Your task to perform on an android device: Go to sound settings Image 0: 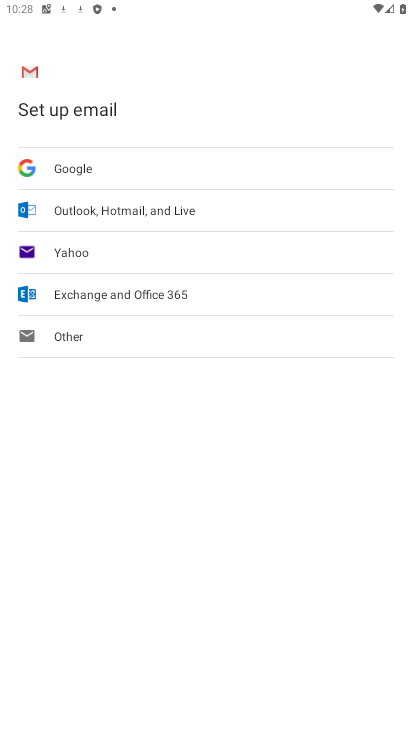
Step 0: press home button
Your task to perform on an android device: Go to sound settings Image 1: 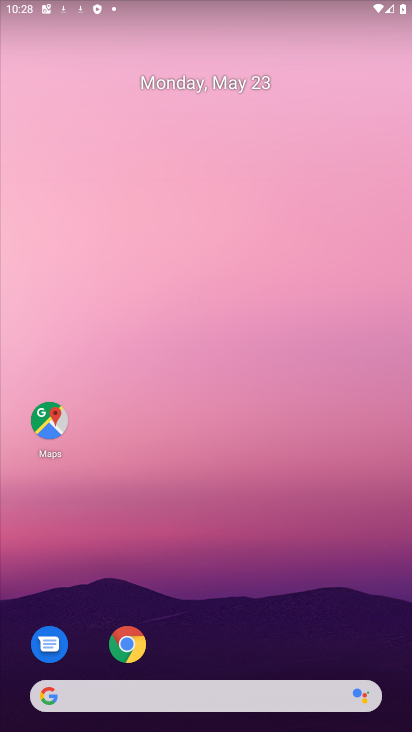
Step 1: drag from (245, 713) to (255, 62)
Your task to perform on an android device: Go to sound settings Image 2: 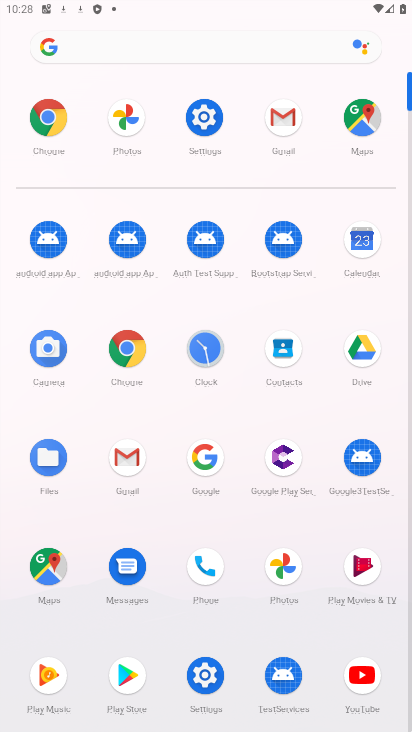
Step 2: click (207, 678)
Your task to perform on an android device: Go to sound settings Image 3: 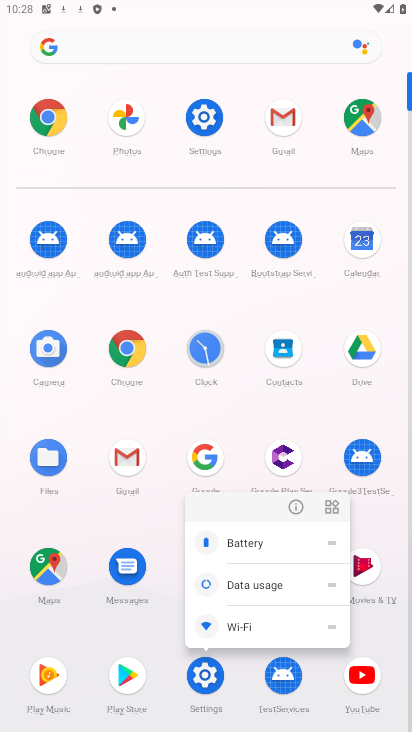
Step 3: click (200, 694)
Your task to perform on an android device: Go to sound settings Image 4: 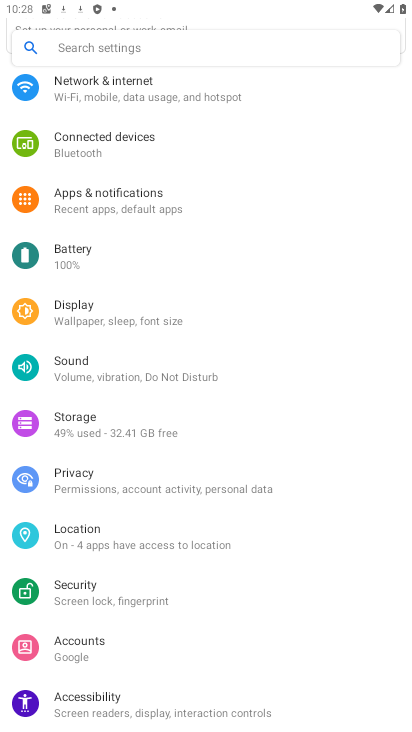
Step 4: click (124, 47)
Your task to perform on an android device: Go to sound settings Image 5: 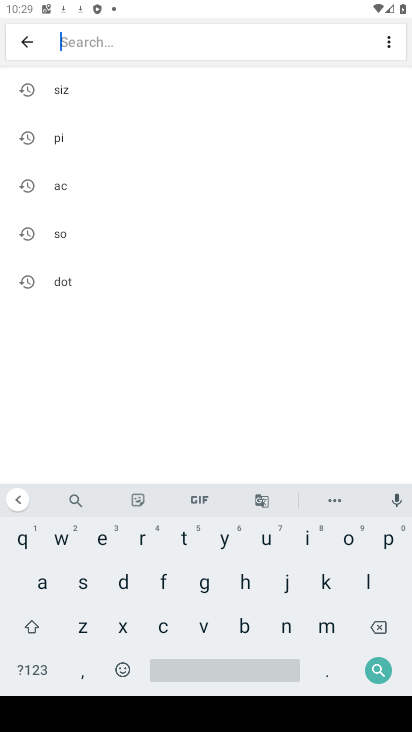
Step 5: click (81, 583)
Your task to perform on an android device: Go to sound settings Image 6: 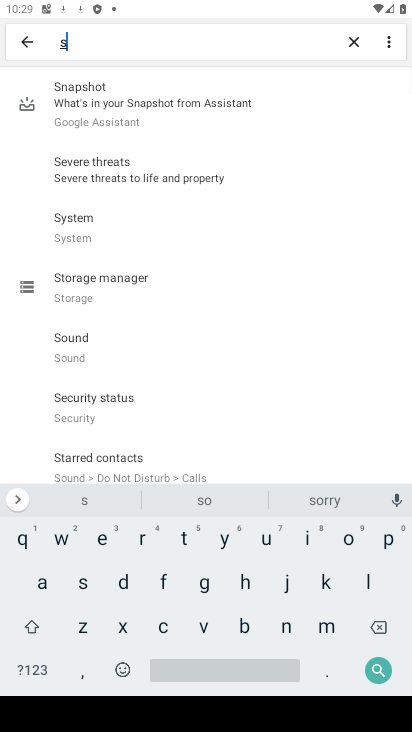
Step 6: click (346, 544)
Your task to perform on an android device: Go to sound settings Image 7: 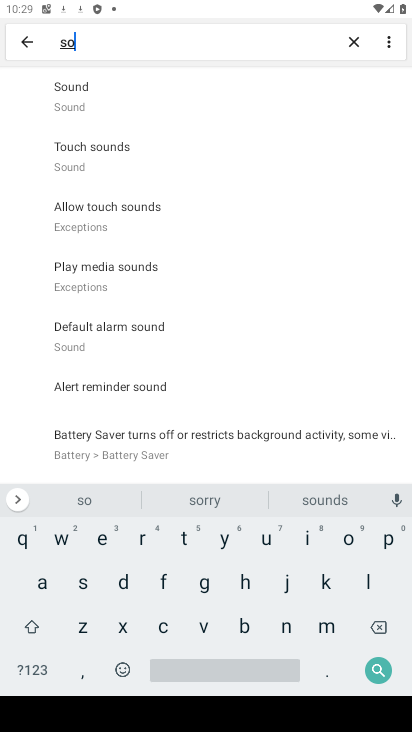
Step 7: click (101, 104)
Your task to perform on an android device: Go to sound settings Image 8: 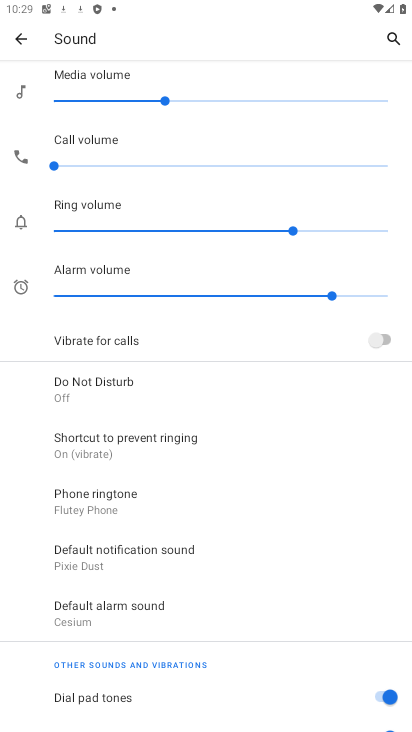
Step 8: task complete